Your task to perform on an android device: change timer sound Image 0: 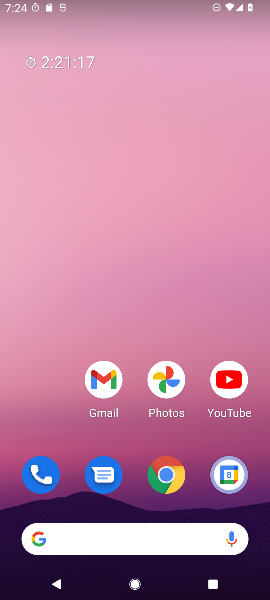
Step 0: press home button
Your task to perform on an android device: change timer sound Image 1: 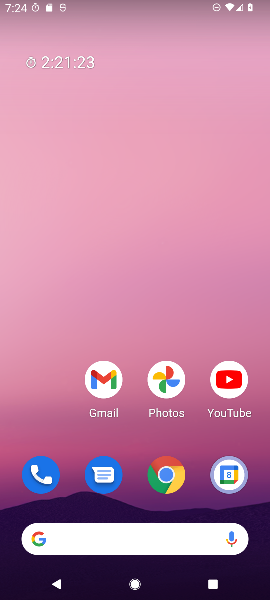
Step 1: drag from (56, 415) to (59, 162)
Your task to perform on an android device: change timer sound Image 2: 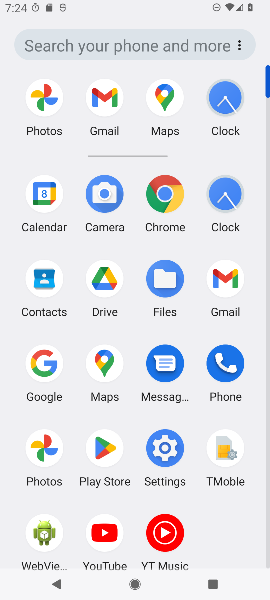
Step 2: click (223, 191)
Your task to perform on an android device: change timer sound Image 3: 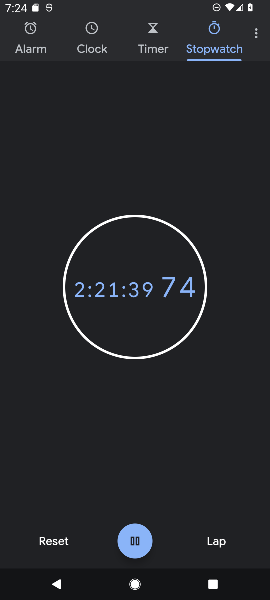
Step 3: click (257, 39)
Your task to perform on an android device: change timer sound Image 4: 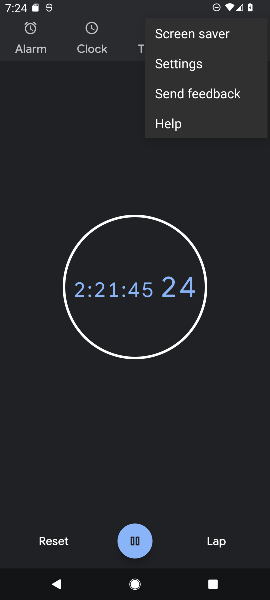
Step 4: click (196, 67)
Your task to perform on an android device: change timer sound Image 5: 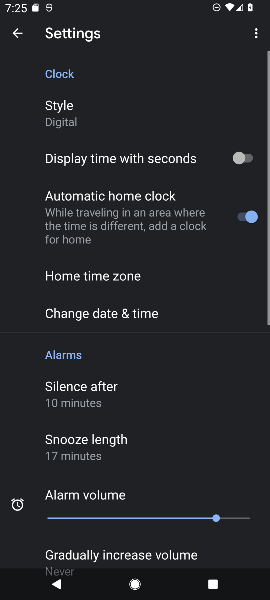
Step 5: drag from (200, 330) to (207, 246)
Your task to perform on an android device: change timer sound Image 6: 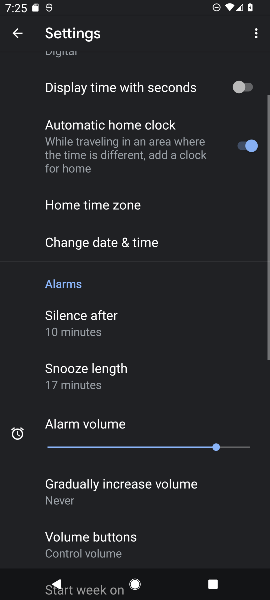
Step 6: drag from (204, 345) to (208, 239)
Your task to perform on an android device: change timer sound Image 7: 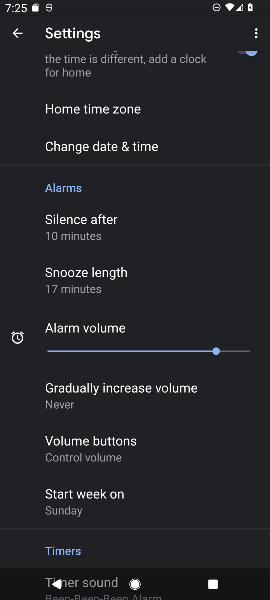
Step 7: drag from (167, 376) to (173, 280)
Your task to perform on an android device: change timer sound Image 8: 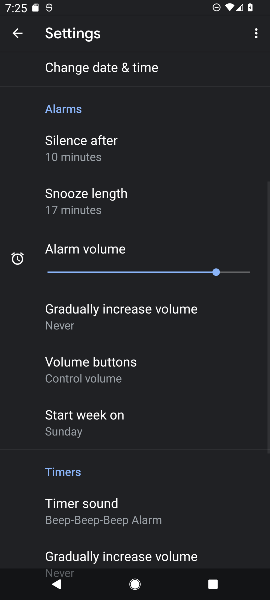
Step 8: drag from (196, 379) to (201, 298)
Your task to perform on an android device: change timer sound Image 9: 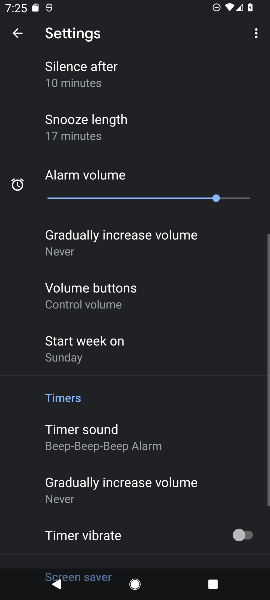
Step 9: drag from (193, 377) to (197, 299)
Your task to perform on an android device: change timer sound Image 10: 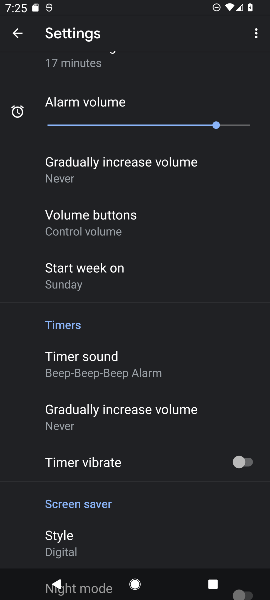
Step 10: drag from (212, 422) to (216, 295)
Your task to perform on an android device: change timer sound Image 11: 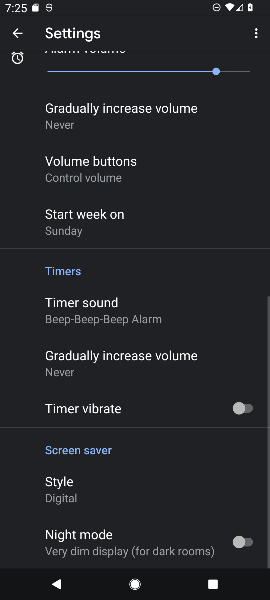
Step 11: drag from (194, 400) to (205, 295)
Your task to perform on an android device: change timer sound Image 12: 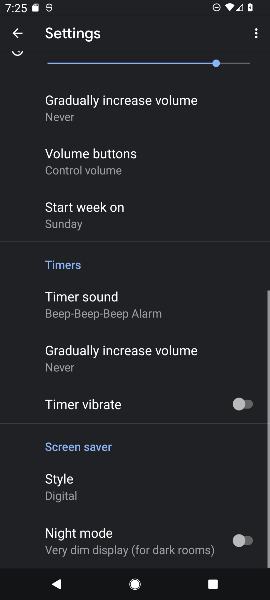
Step 12: drag from (211, 202) to (211, 310)
Your task to perform on an android device: change timer sound Image 13: 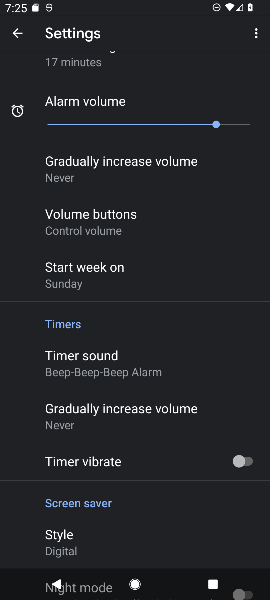
Step 13: drag from (211, 203) to (211, 321)
Your task to perform on an android device: change timer sound Image 14: 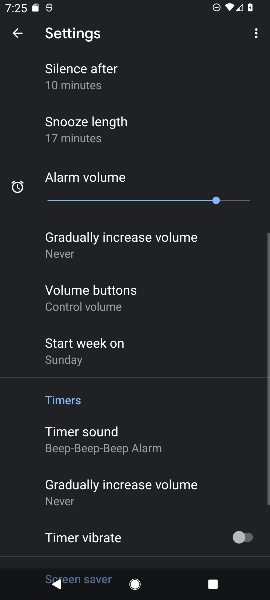
Step 14: drag from (238, 226) to (238, 269)
Your task to perform on an android device: change timer sound Image 15: 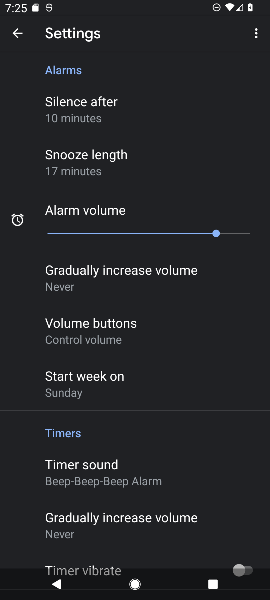
Step 15: drag from (242, 140) to (241, 267)
Your task to perform on an android device: change timer sound Image 16: 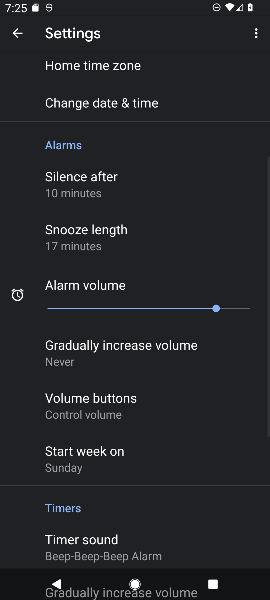
Step 16: drag from (242, 146) to (241, 248)
Your task to perform on an android device: change timer sound Image 17: 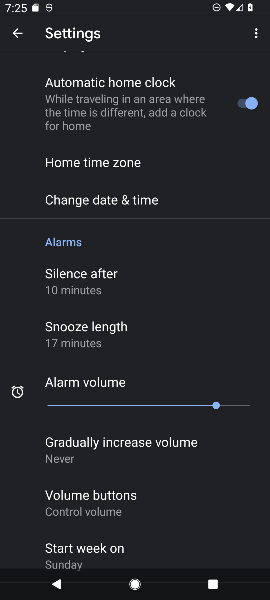
Step 17: drag from (238, 163) to (235, 233)
Your task to perform on an android device: change timer sound Image 18: 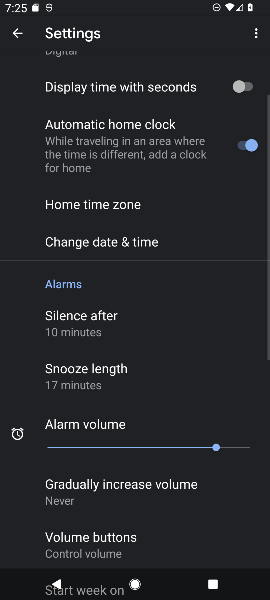
Step 18: drag from (216, 141) to (218, 238)
Your task to perform on an android device: change timer sound Image 19: 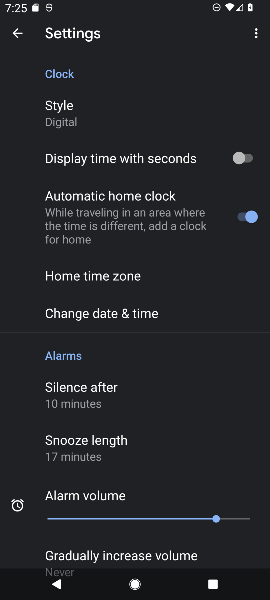
Step 19: drag from (207, 108) to (217, 238)
Your task to perform on an android device: change timer sound Image 20: 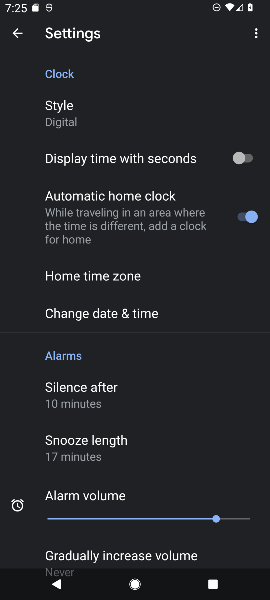
Step 20: drag from (174, 346) to (181, 239)
Your task to perform on an android device: change timer sound Image 21: 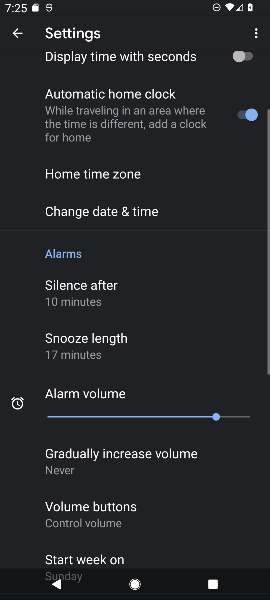
Step 21: drag from (181, 320) to (185, 243)
Your task to perform on an android device: change timer sound Image 22: 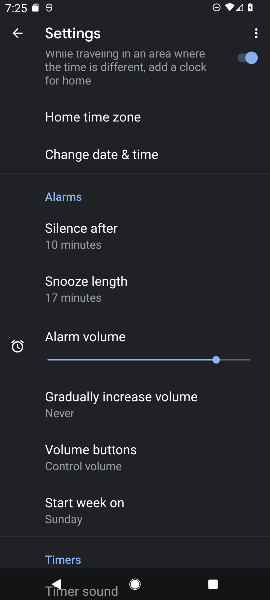
Step 22: drag from (205, 403) to (205, 266)
Your task to perform on an android device: change timer sound Image 23: 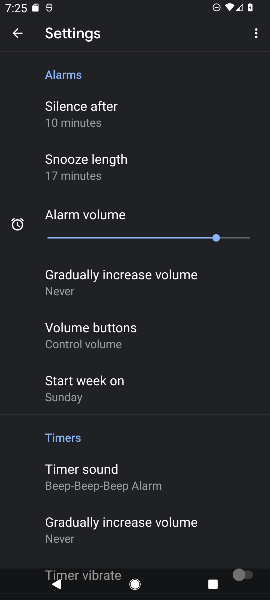
Step 23: drag from (192, 397) to (198, 307)
Your task to perform on an android device: change timer sound Image 24: 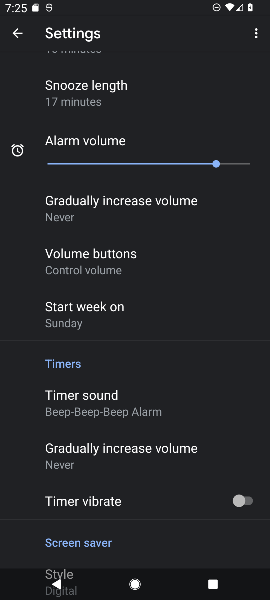
Step 24: drag from (185, 472) to (190, 341)
Your task to perform on an android device: change timer sound Image 25: 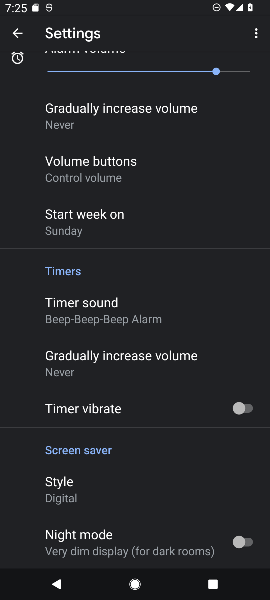
Step 25: click (113, 306)
Your task to perform on an android device: change timer sound Image 26: 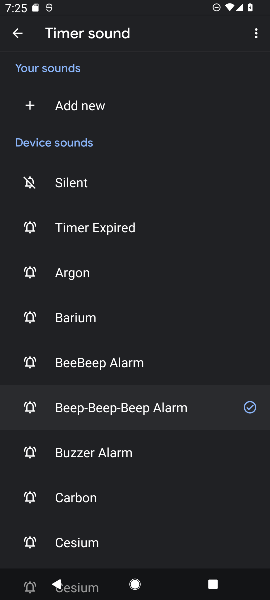
Step 26: click (125, 455)
Your task to perform on an android device: change timer sound Image 27: 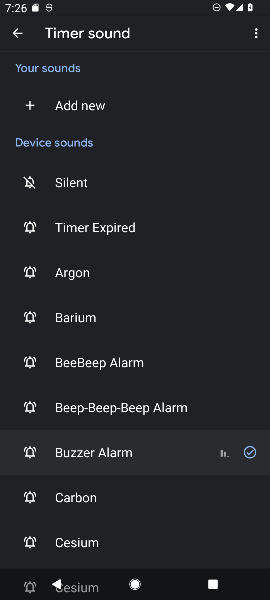
Step 27: task complete